Your task to perform on an android device: turn on bluetooth scan Image 0: 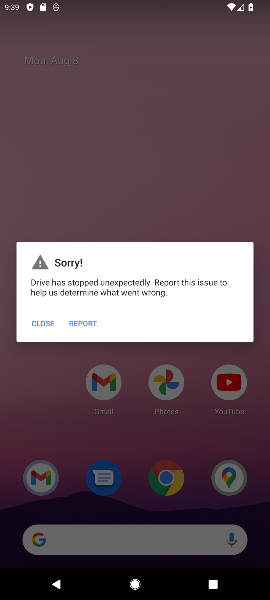
Step 0: click (30, 323)
Your task to perform on an android device: turn on bluetooth scan Image 1: 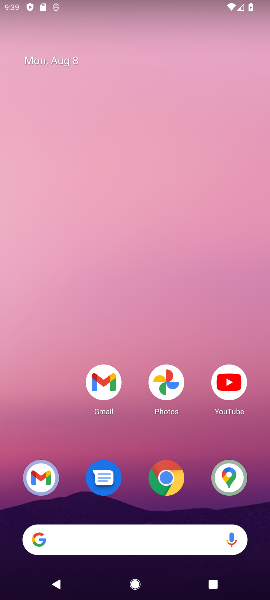
Step 1: drag from (117, 516) to (80, 2)
Your task to perform on an android device: turn on bluetooth scan Image 2: 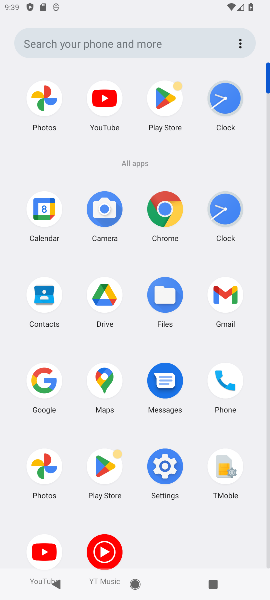
Step 2: click (174, 472)
Your task to perform on an android device: turn on bluetooth scan Image 3: 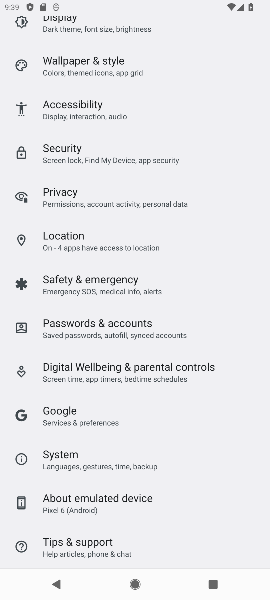
Step 3: drag from (81, 119) to (81, 369)
Your task to perform on an android device: turn on bluetooth scan Image 4: 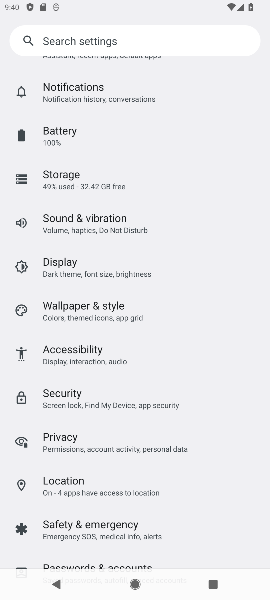
Step 4: drag from (113, 228) to (130, 199)
Your task to perform on an android device: turn on bluetooth scan Image 5: 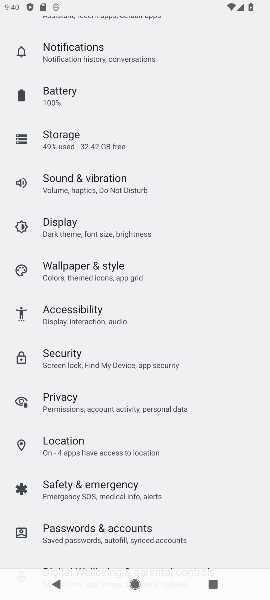
Step 5: click (74, 438)
Your task to perform on an android device: turn on bluetooth scan Image 6: 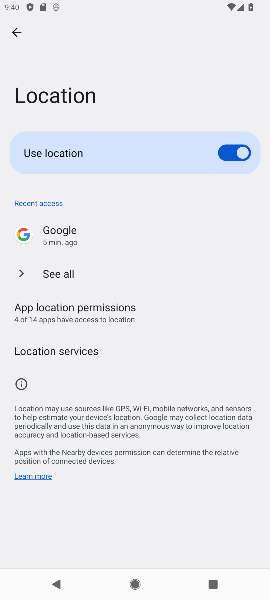
Step 6: click (79, 358)
Your task to perform on an android device: turn on bluetooth scan Image 7: 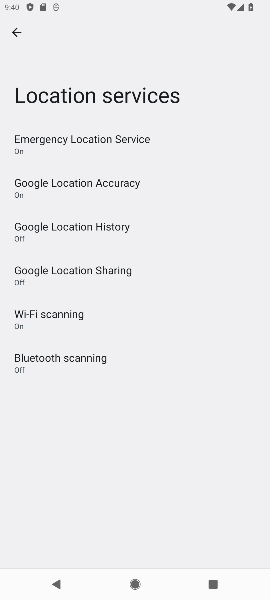
Step 7: click (102, 359)
Your task to perform on an android device: turn on bluetooth scan Image 8: 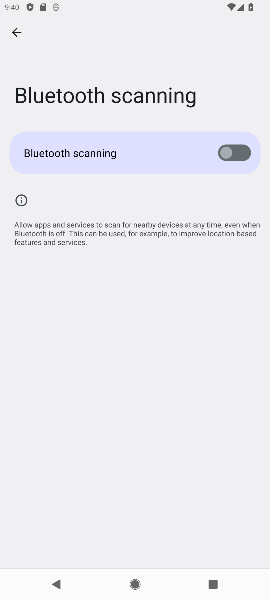
Step 8: click (206, 147)
Your task to perform on an android device: turn on bluetooth scan Image 9: 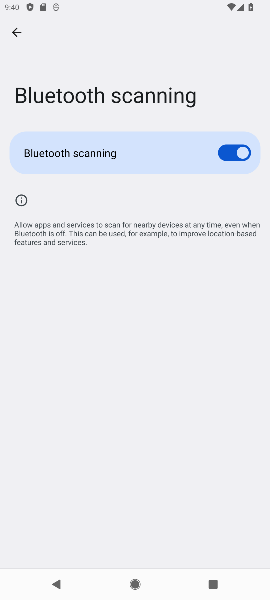
Step 9: task complete